Your task to perform on an android device: turn off location history Image 0: 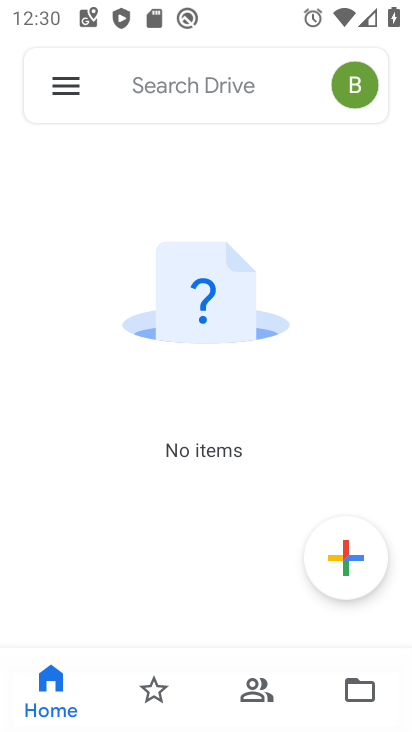
Step 0: press home button
Your task to perform on an android device: turn off location history Image 1: 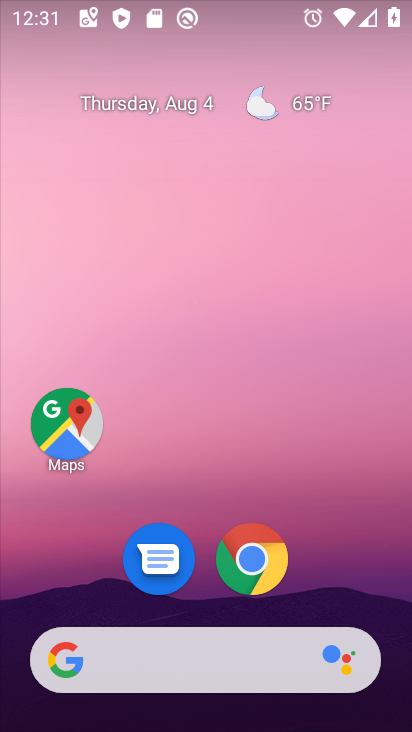
Step 1: drag from (152, 676) to (272, 23)
Your task to perform on an android device: turn off location history Image 2: 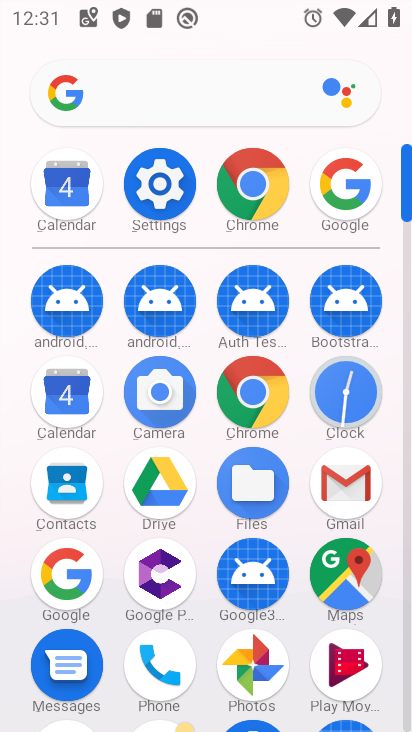
Step 2: click (160, 182)
Your task to perform on an android device: turn off location history Image 3: 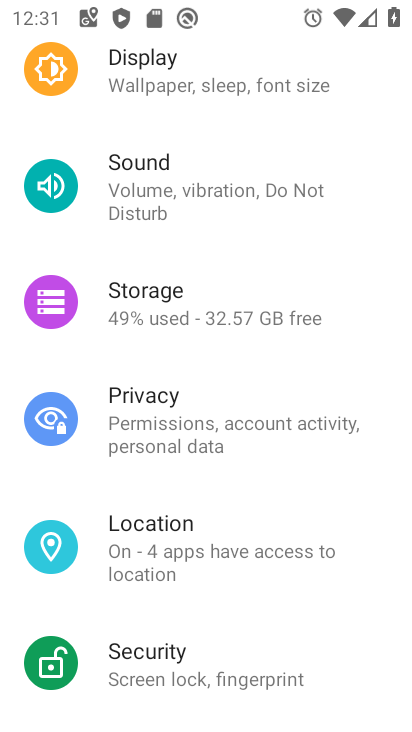
Step 3: click (145, 522)
Your task to perform on an android device: turn off location history Image 4: 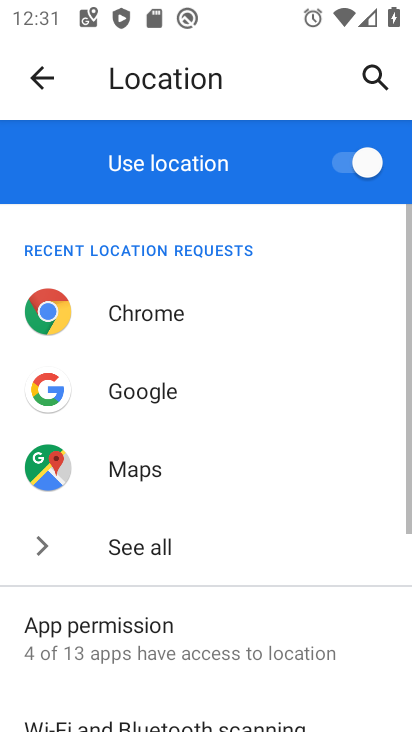
Step 4: drag from (208, 668) to (203, 398)
Your task to perform on an android device: turn off location history Image 5: 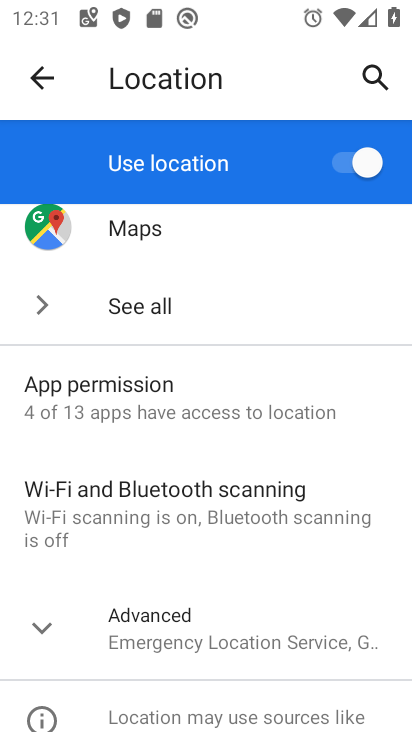
Step 5: click (223, 640)
Your task to perform on an android device: turn off location history Image 6: 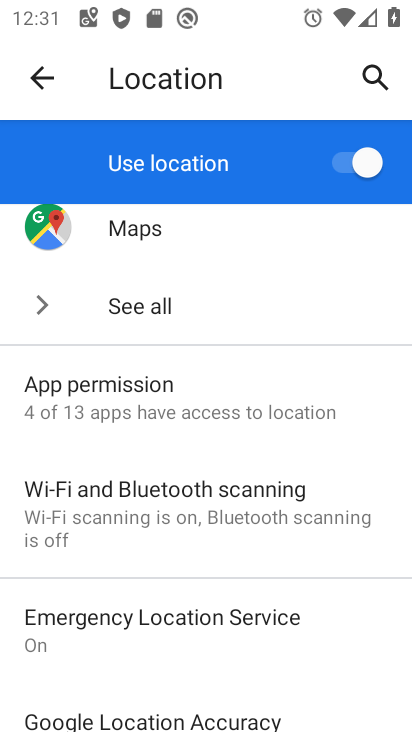
Step 6: task complete